Your task to perform on an android device: turn on notifications settings in the gmail app Image 0: 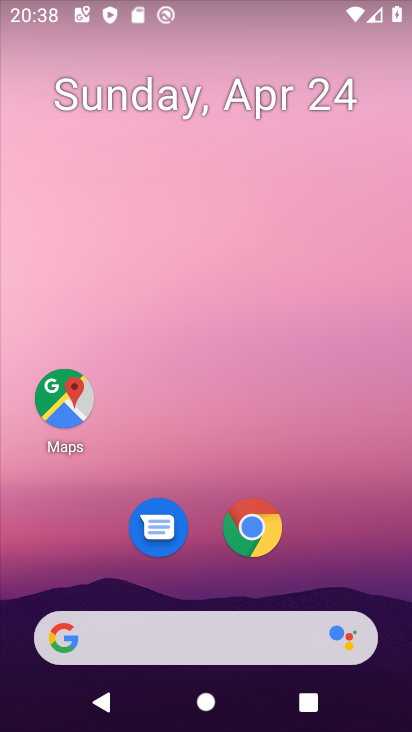
Step 0: drag from (328, 555) to (325, 199)
Your task to perform on an android device: turn on notifications settings in the gmail app Image 1: 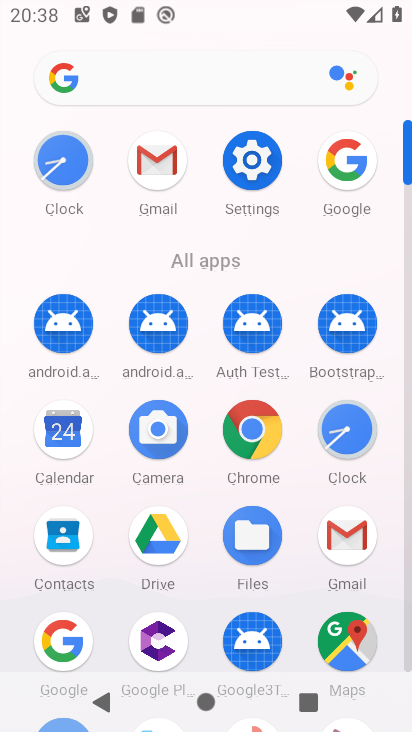
Step 1: click (156, 171)
Your task to perform on an android device: turn on notifications settings in the gmail app Image 2: 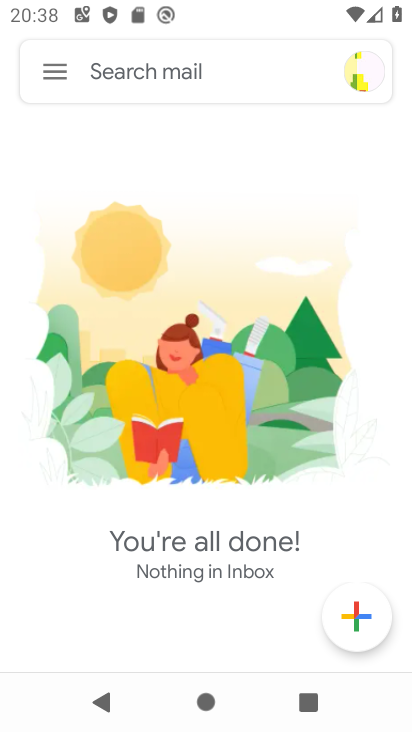
Step 2: click (64, 71)
Your task to perform on an android device: turn on notifications settings in the gmail app Image 3: 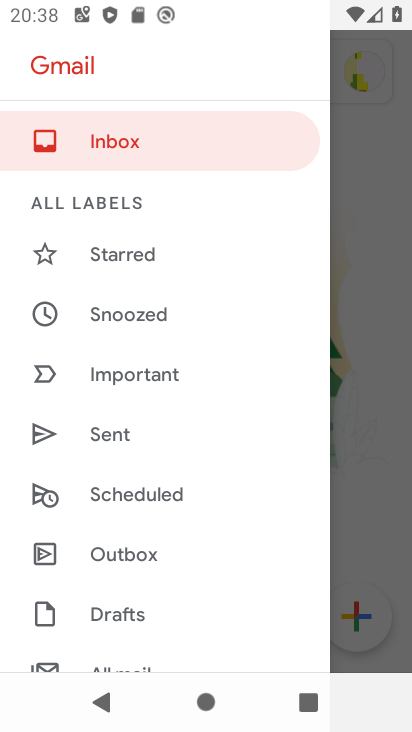
Step 3: drag from (164, 534) to (151, 21)
Your task to perform on an android device: turn on notifications settings in the gmail app Image 4: 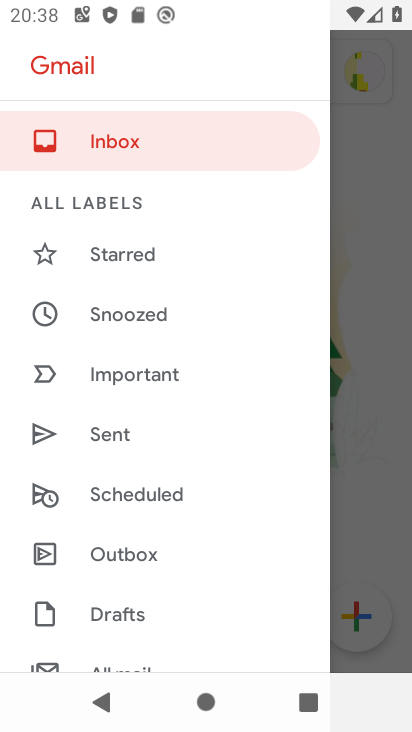
Step 4: drag from (183, 576) to (197, 239)
Your task to perform on an android device: turn on notifications settings in the gmail app Image 5: 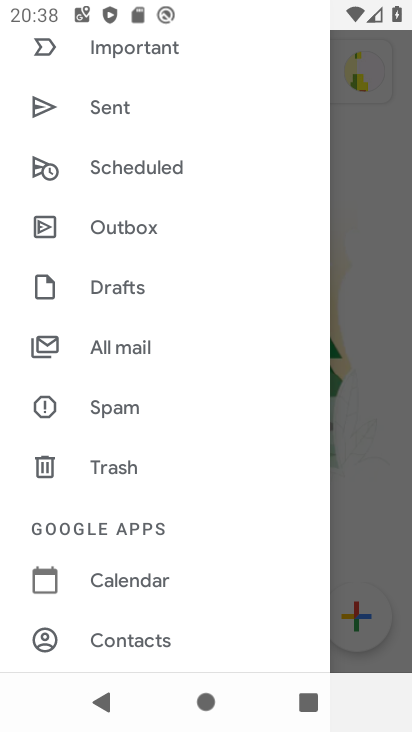
Step 5: drag from (217, 519) to (190, 160)
Your task to perform on an android device: turn on notifications settings in the gmail app Image 6: 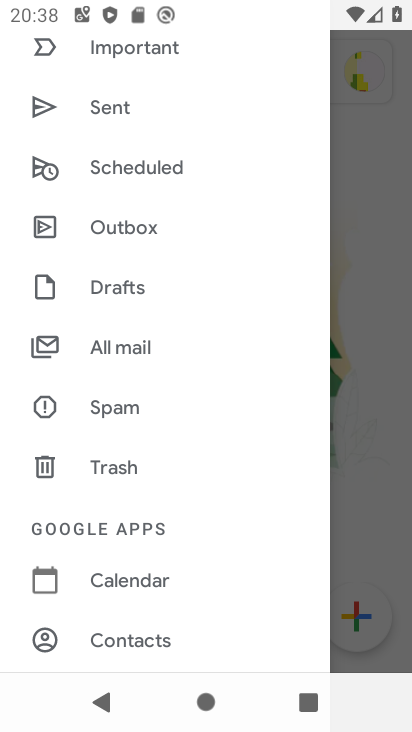
Step 6: drag from (219, 543) to (210, 155)
Your task to perform on an android device: turn on notifications settings in the gmail app Image 7: 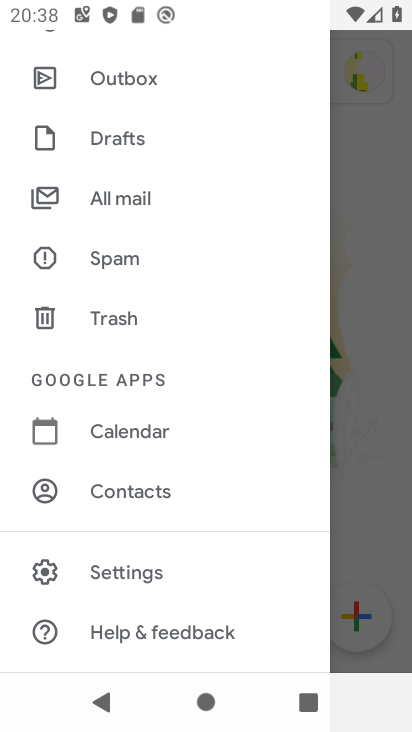
Step 7: click (118, 566)
Your task to perform on an android device: turn on notifications settings in the gmail app Image 8: 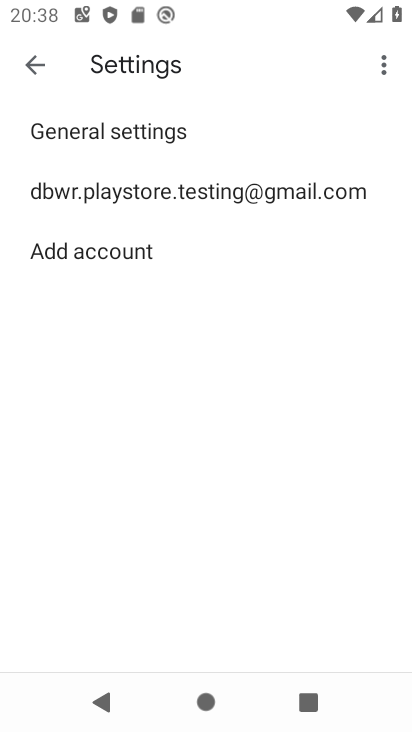
Step 8: click (186, 184)
Your task to perform on an android device: turn on notifications settings in the gmail app Image 9: 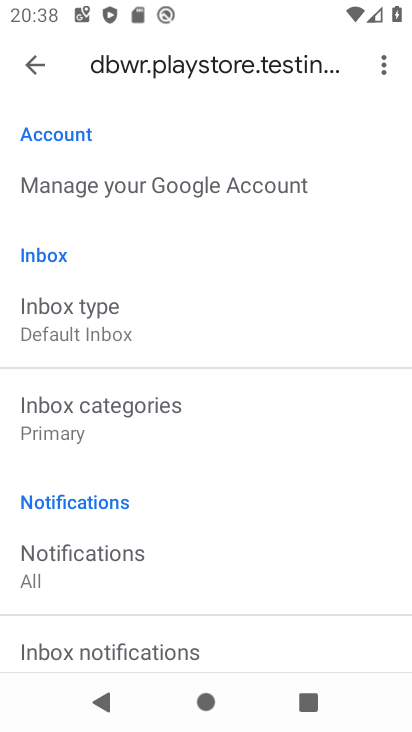
Step 9: click (92, 547)
Your task to perform on an android device: turn on notifications settings in the gmail app Image 10: 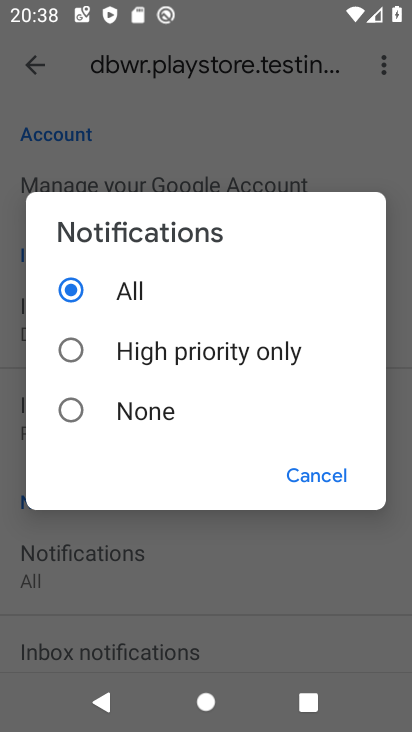
Step 10: click (309, 475)
Your task to perform on an android device: turn on notifications settings in the gmail app Image 11: 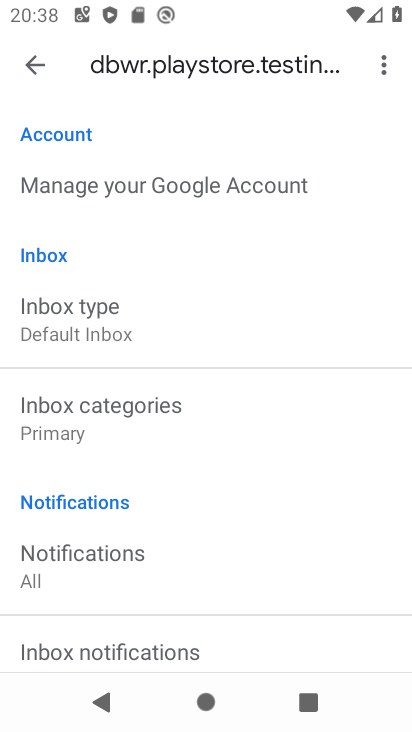
Step 11: task complete